Your task to perform on an android device: open app "Walmart Shopping & Grocery" Image 0: 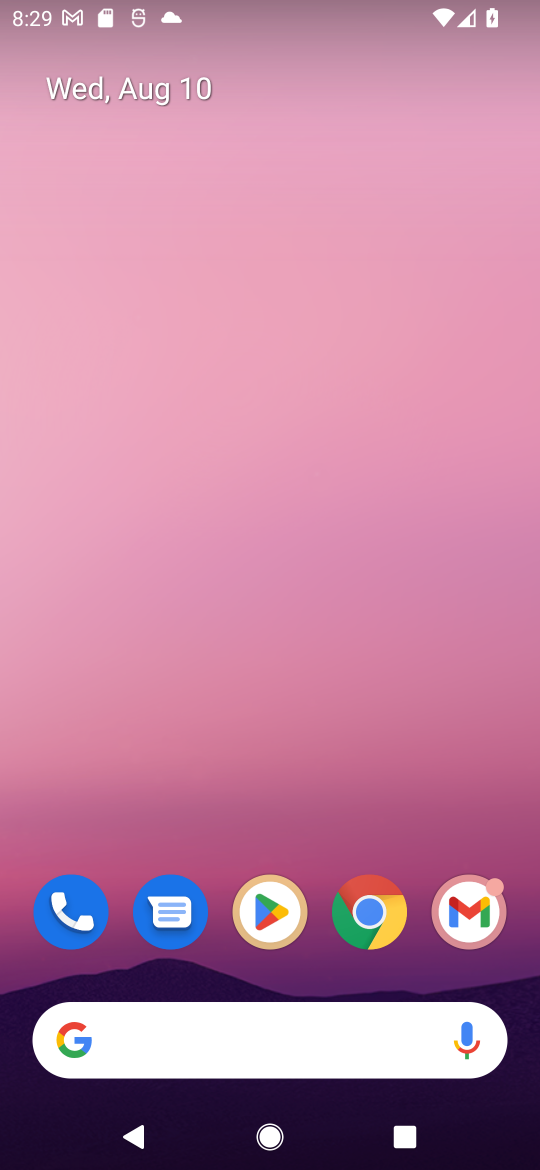
Step 0: drag from (508, 893) to (274, 17)
Your task to perform on an android device: open app "Walmart Shopping & Grocery" Image 1: 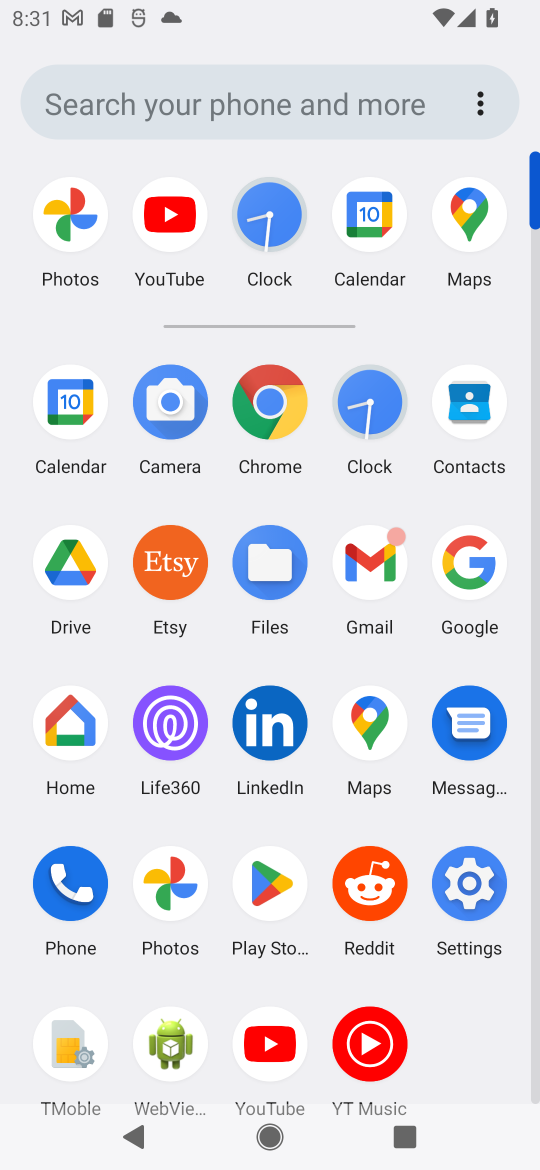
Step 1: click (251, 901)
Your task to perform on an android device: open app "Walmart Shopping & Grocery" Image 2: 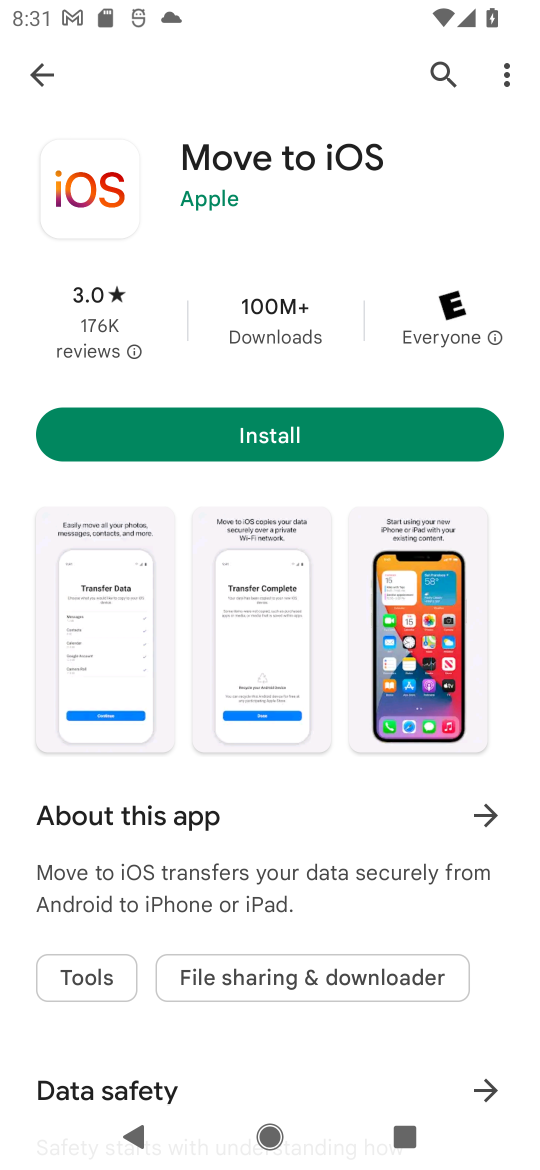
Step 2: press back button
Your task to perform on an android device: open app "Walmart Shopping & Grocery" Image 3: 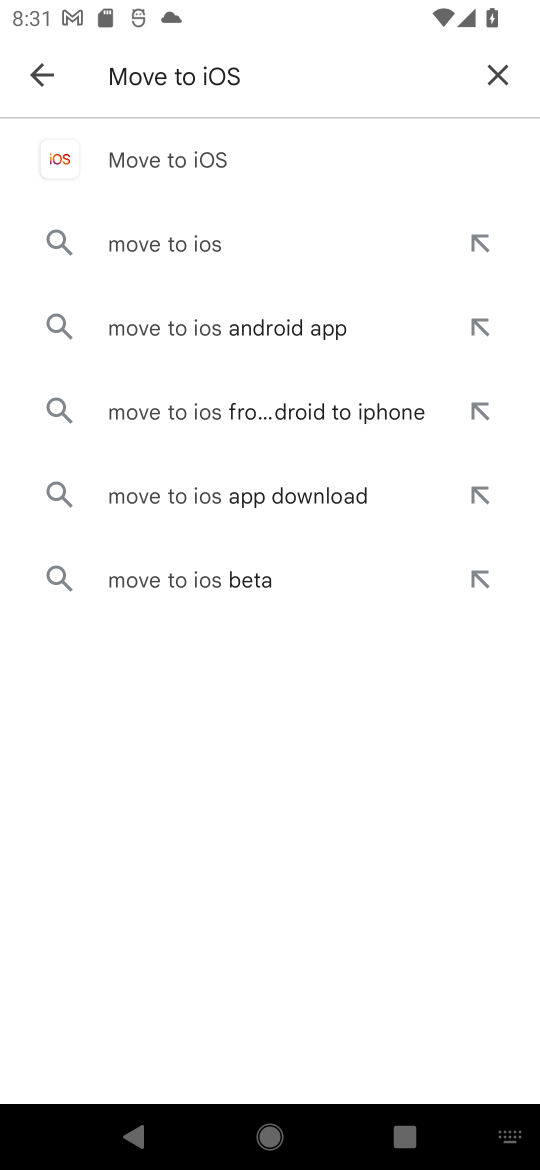
Step 3: press back button
Your task to perform on an android device: open app "Walmart Shopping & Grocery" Image 4: 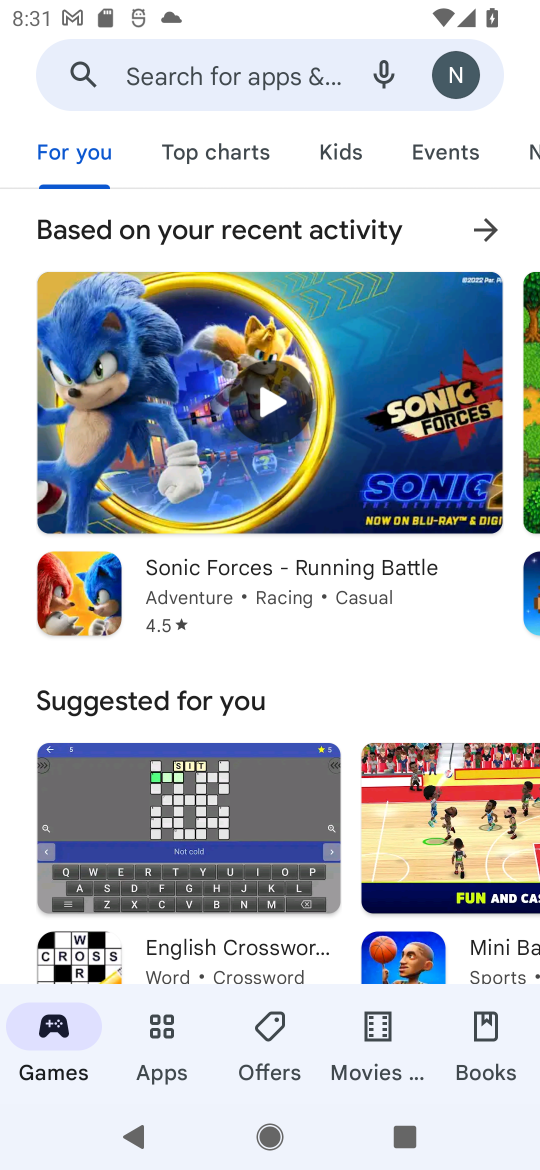
Step 4: click (137, 84)
Your task to perform on an android device: open app "Walmart Shopping & Grocery" Image 5: 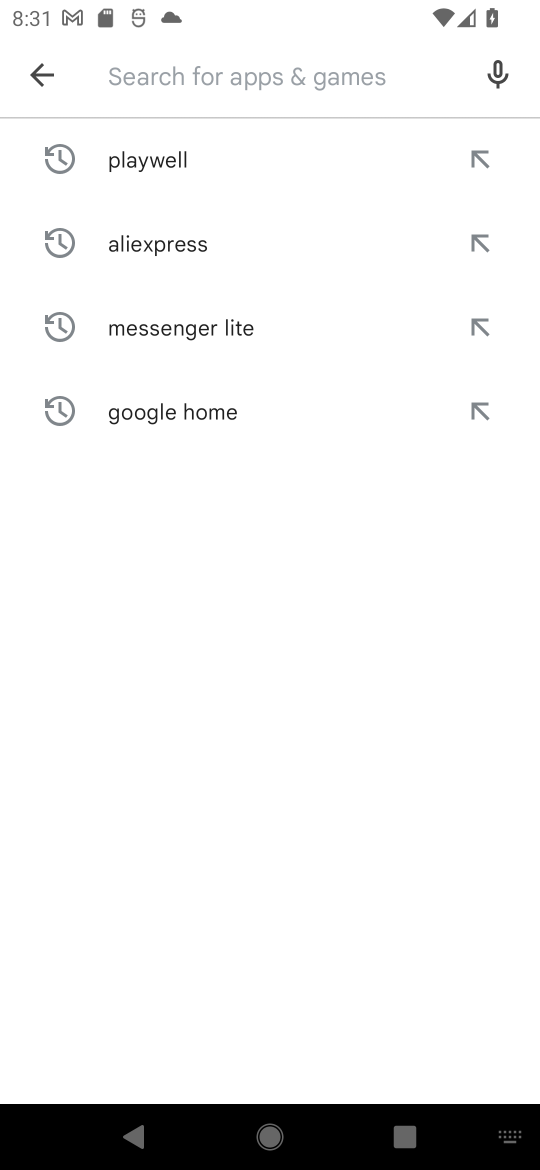
Step 5: type "Walmart Shopping & Grocery"
Your task to perform on an android device: open app "Walmart Shopping & Grocery" Image 6: 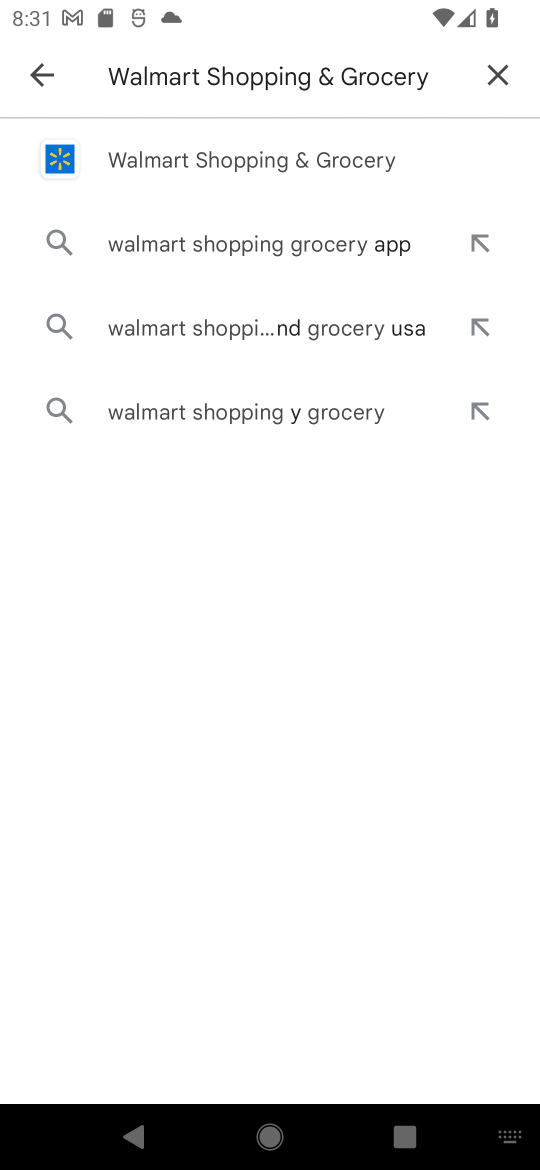
Step 6: click (320, 139)
Your task to perform on an android device: open app "Walmart Shopping & Grocery" Image 7: 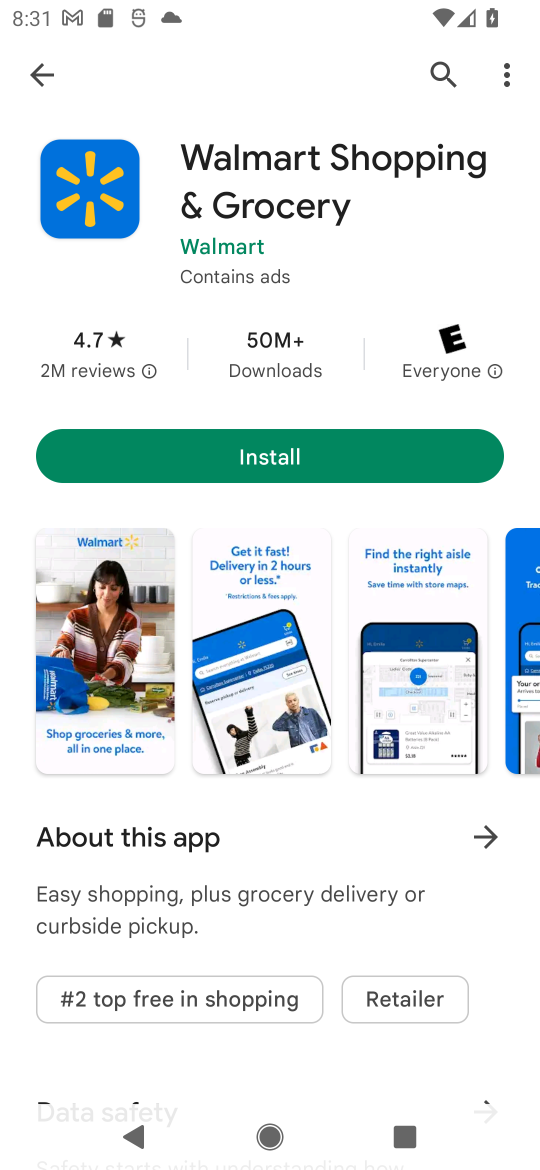
Step 7: task complete